Your task to perform on an android device: toggle data saver in the chrome app Image 0: 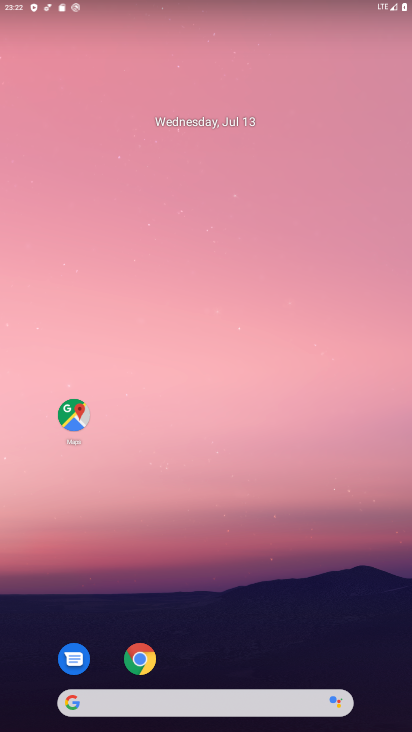
Step 0: click (142, 659)
Your task to perform on an android device: toggle data saver in the chrome app Image 1: 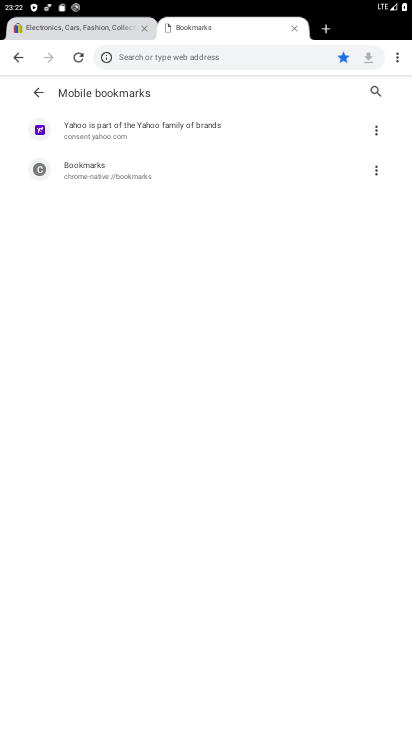
Step 1: click (397, 62)
Your task to perform on an android device: toggle data saver in the chrome app Image 2: 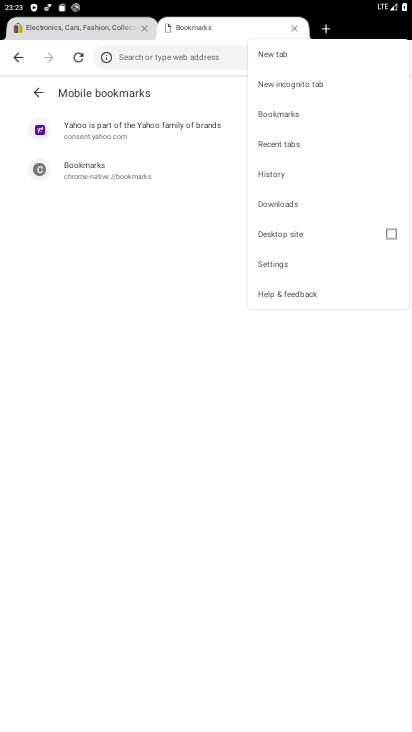
Step 2: click (271, 259)
Your task to perform on an android device: toggle data saver in the chrome app Image 3: 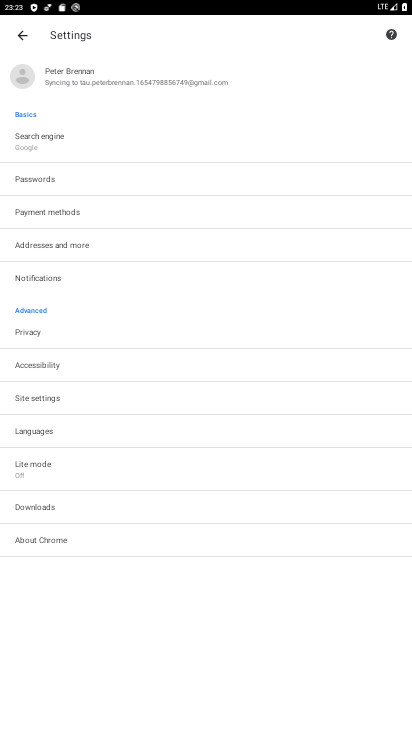
Step 3: click (23, 463)
Your task to perform on an android device: toggle data saver in the chrome app Image 4: 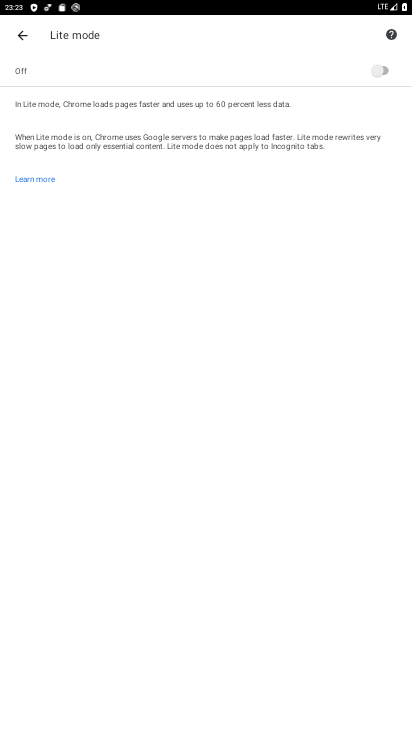
Step 4: click (386, 67)
Your task to perform on an android device: toggle data saver in the chrome app Image 5: 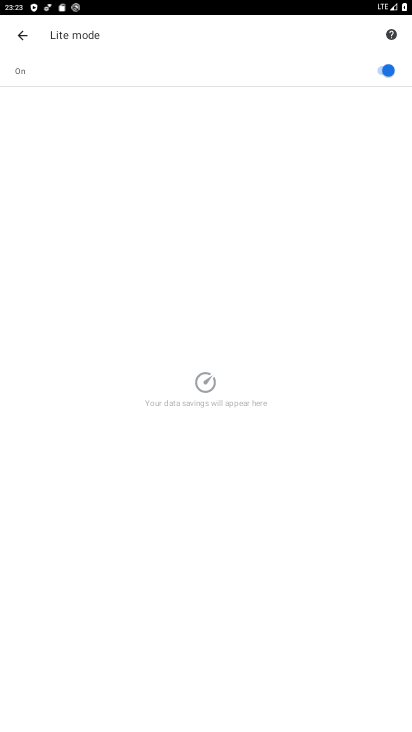
Step 5: task complete